Your task to perform on an android device: Set the phone to "Do not disturb". Image 0: 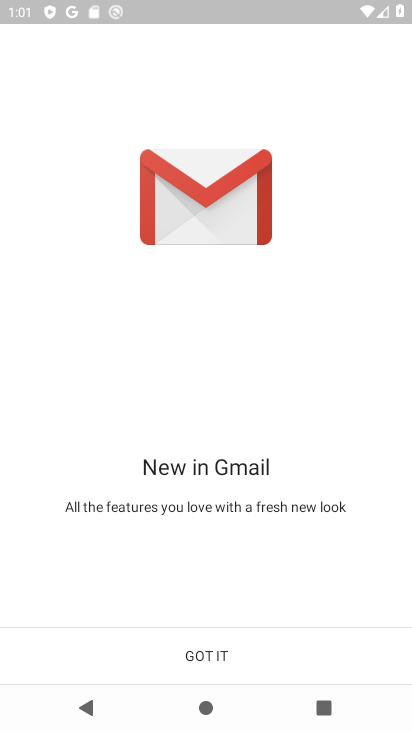
Step 0: click (210, 708)
Your task to perform on an android device: Set the phone to "Do not disturb". Image 1: 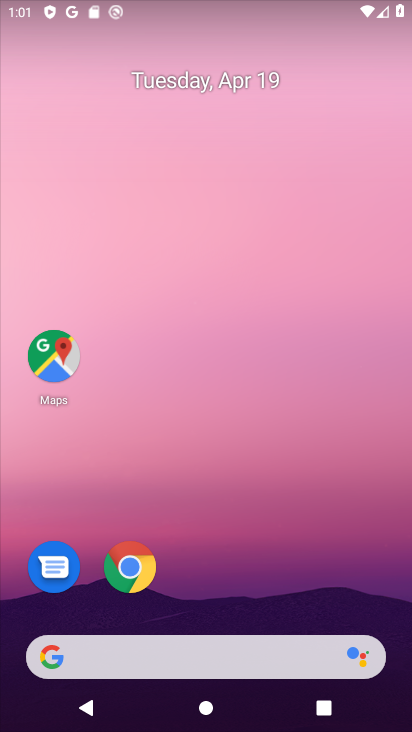
Step 1: drag from (298, 525) to (234, 89)
Your task to perform on an android device: Set the phone to "Do not disturb". Image 2: 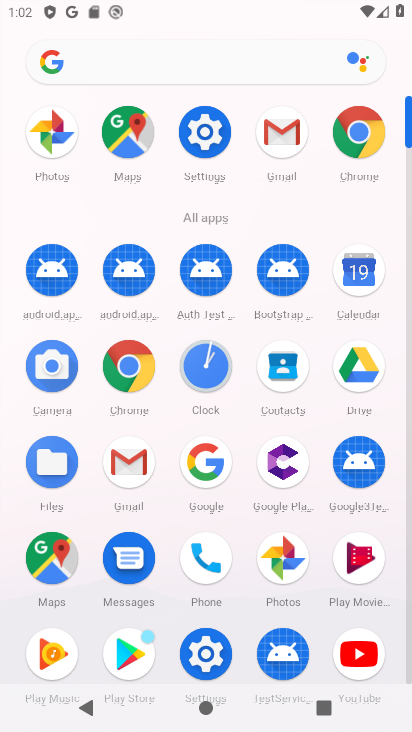
Step 2: drag from (204, 5) to (254, 539)
Your task to perform on an android device: Set the phone to "Do not disturb". Image 3: 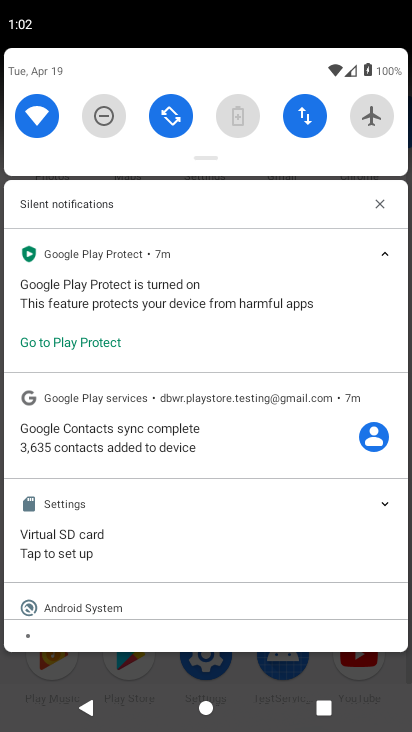
Step 3: click (102, 109)
Your task to perform on an android device: Set the phone to "Do not disturb". Image 4: 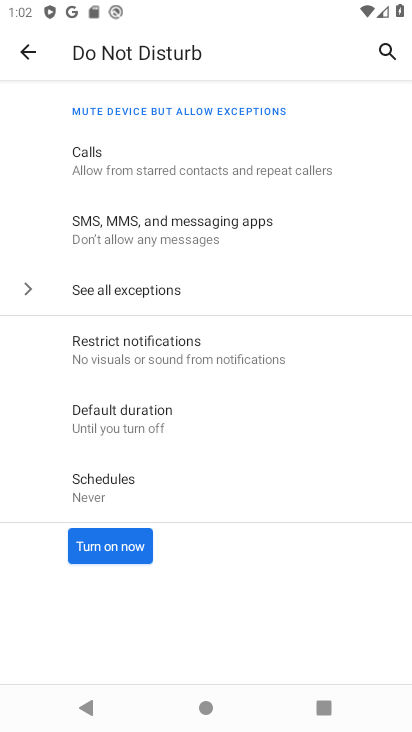
Step 4: click (121, 548)
Your task to perform on an android device: Set the phone to "Do not disturb". Image 5: 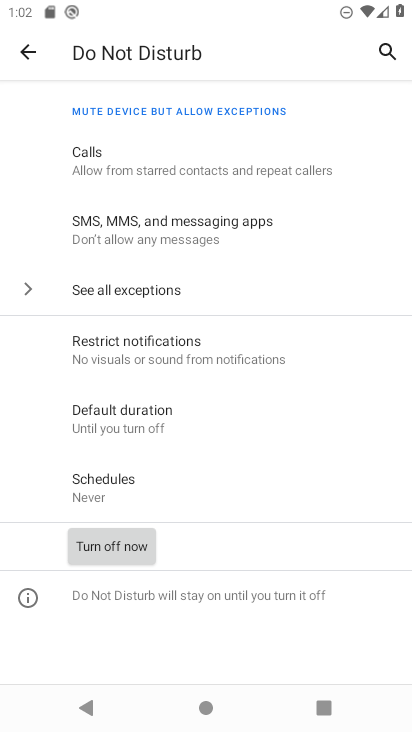
Step 5: task complete